Your task to perform on an android device: Open calendar and show me the second week of next month Image 0: 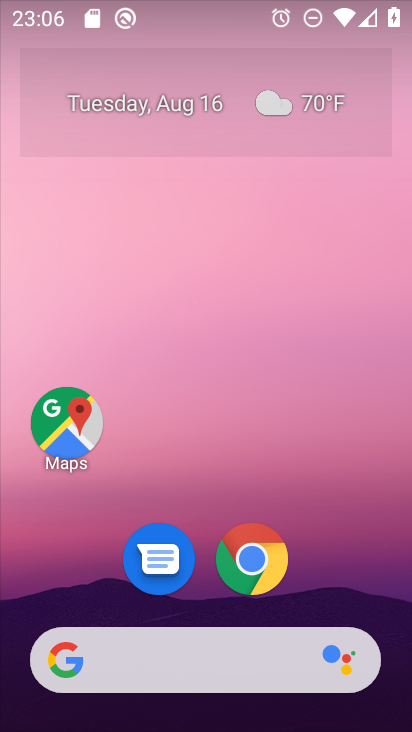
Step 0: drag from (163, 672) to (304, 114)
Your task to perform on an android device: Open calendar and show me the second week of next month Image 1: 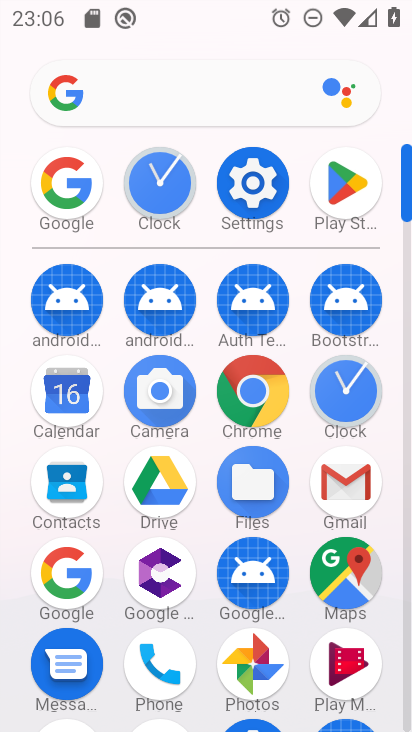
Step 1: click (69, 397)
Your task to perform on an android device: Open calendar and show me the second week of next month Image 2: 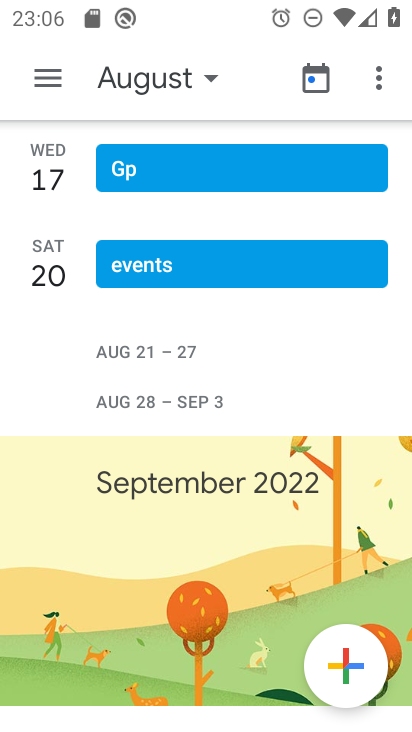
Step 2: click (322, 76)
Your task to perform on an android device: Open calendar and show me the second week of next month Image 3: 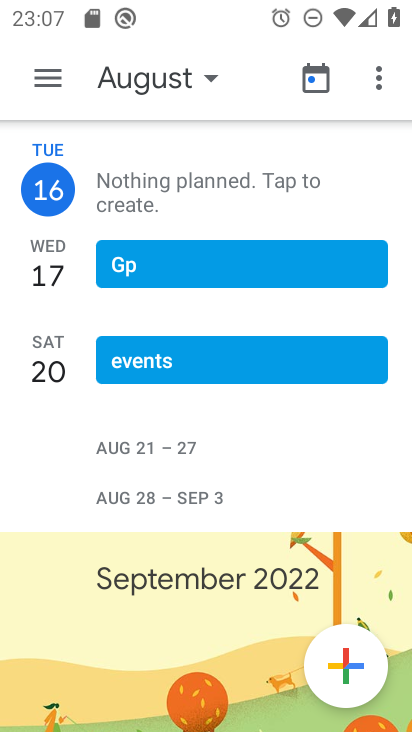
Step 3: click (208, 77)
Your task to perform on an android device: Open calendar and show me the second week of next month Image 4: 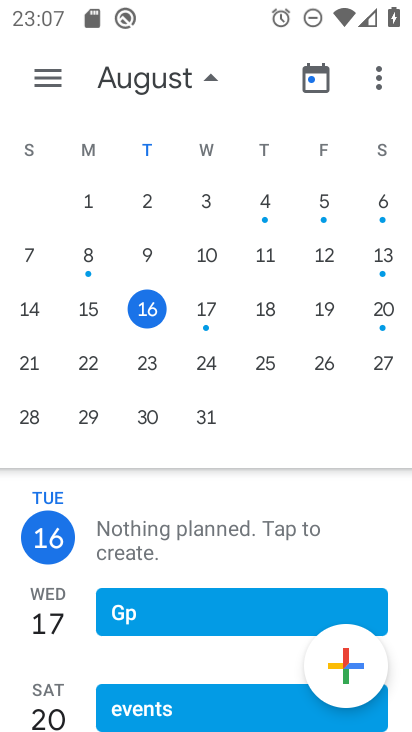
Step 4: drag from (404, 273) to (17, 338)
Your task to perform on an android device: Open calendar and show me the second week of next month Image 5: 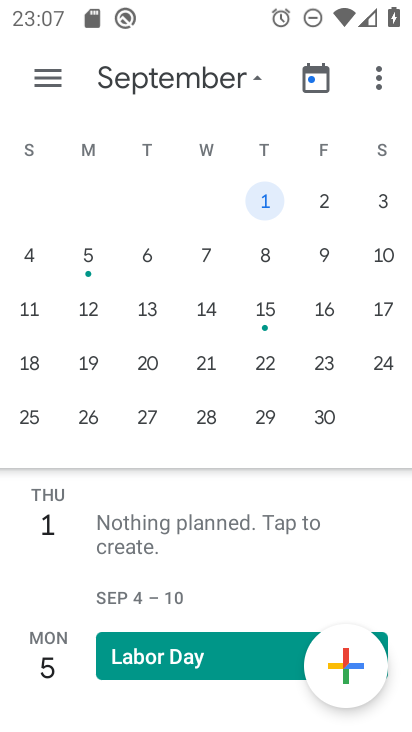
Step 5: click (82, 305)
Your task to perform on an android device: Open calendar and show me the second week of next month Image 6: 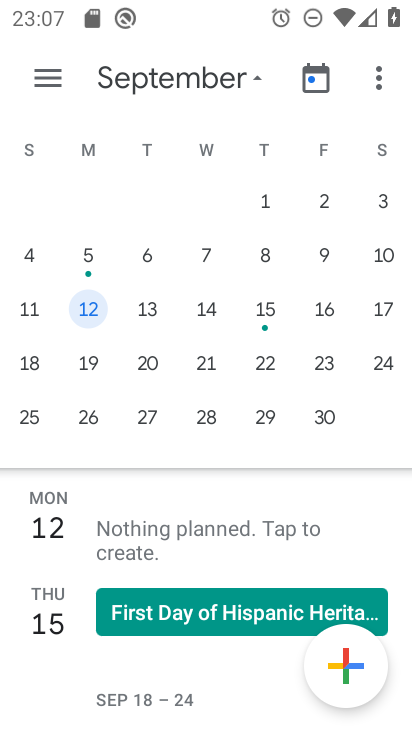
Step 6: click (38, 77)
Your task to perform on an android device: Open calendar and show me the second week of next month Image 7: 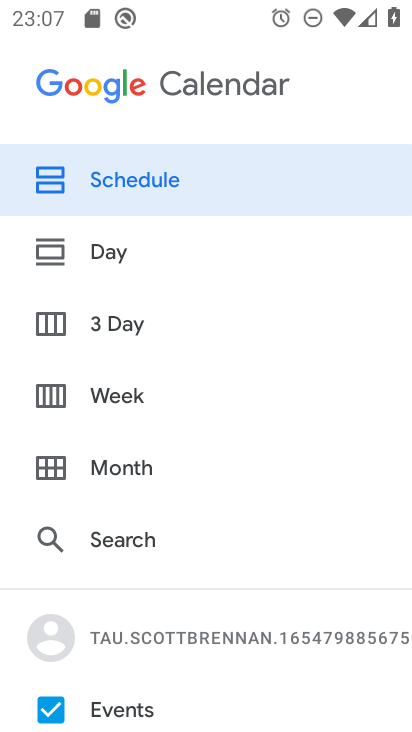
Step 7: click (100, 390)
Your task to perform on an android device: Open calendar and show me the second week of next month Image 8: 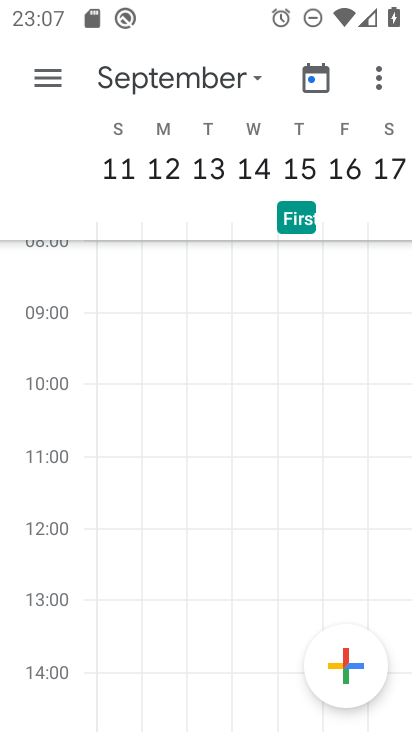
Step 8: task complete